Your task to perform on an android device: Open Google Chrome Image 0: 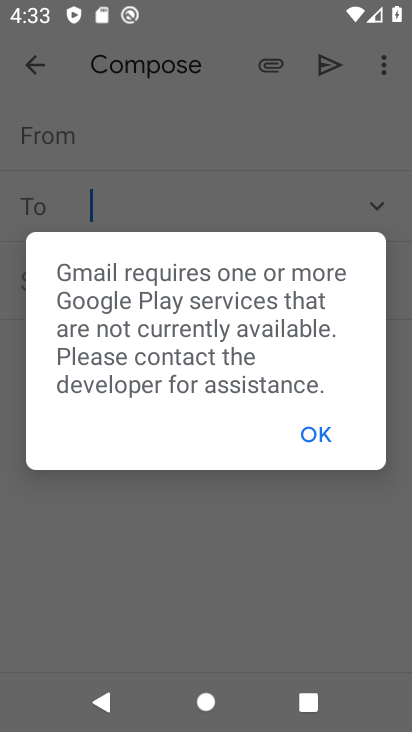
Step 0: press home button
Your task to perform on an android device: Open Google Chrome Image 1: 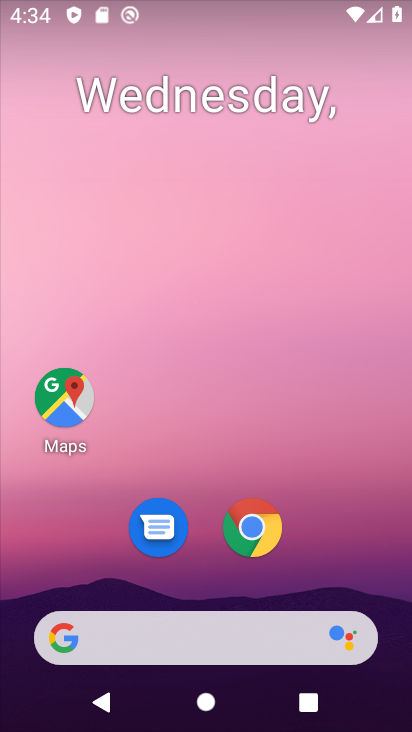
Step 1: click (264, 521)
Your task to perform on an android device: Open Google Chrome Image 2: 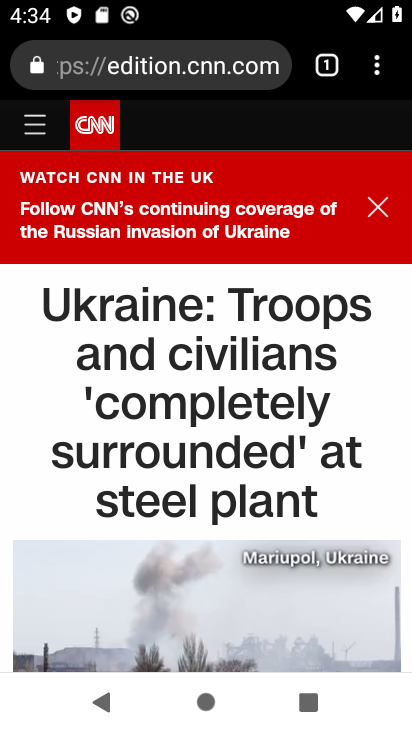
Step 2: task complete